Your task to perform on an android device: Go to sound settings Image 0: 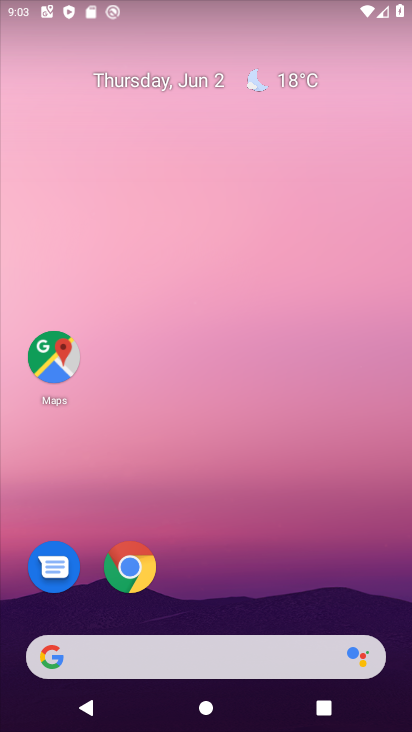
Step 0: press home button
Your task to perform on an android device: Go to sound settings Image 1: 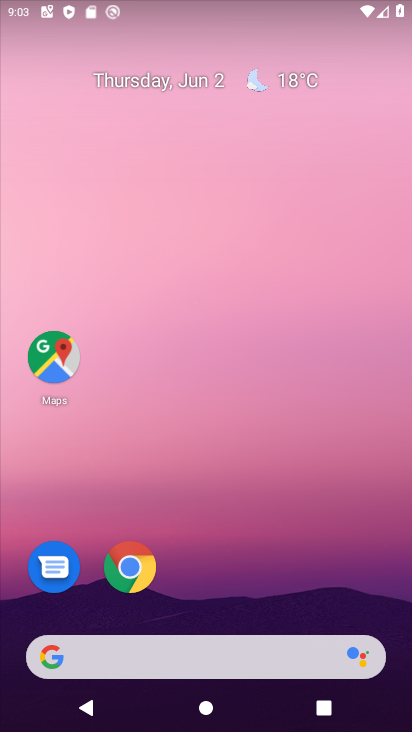
Step 1: drag from (207, 606) to (224, 41)
Your task to perform on an android device: Go to sound settings Image 2: 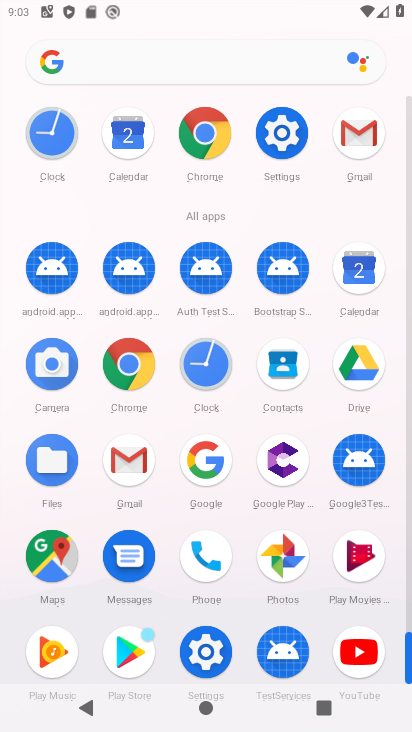
Step 2: click (281, 130)
Your task to perform on an android device: Go to sound settings Image 3: 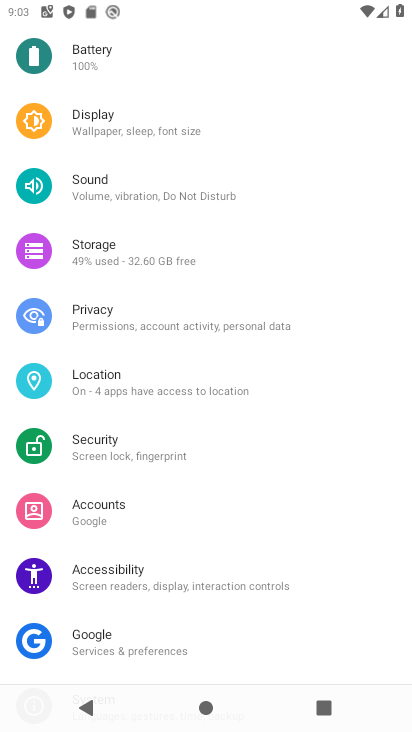
Step 3: click (114, 183)
Your task to perform on an android device: Go to sound settings Image 4: 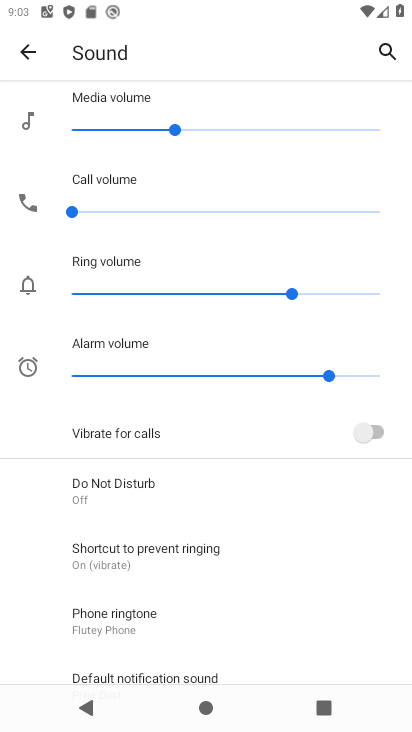
Step 4: drag from (191, 602) to (185, 108)
Your task to perform on an android device: Go to sound settings Image 5: 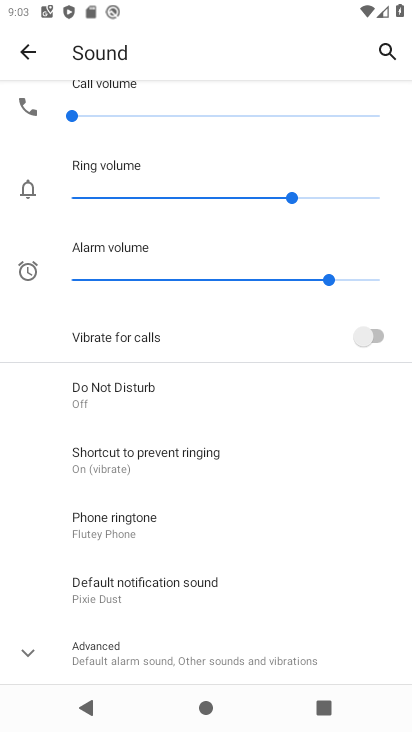
Step 5: click (21, 650)
Your task to perform on an android device: Go to sound settings Image 6: 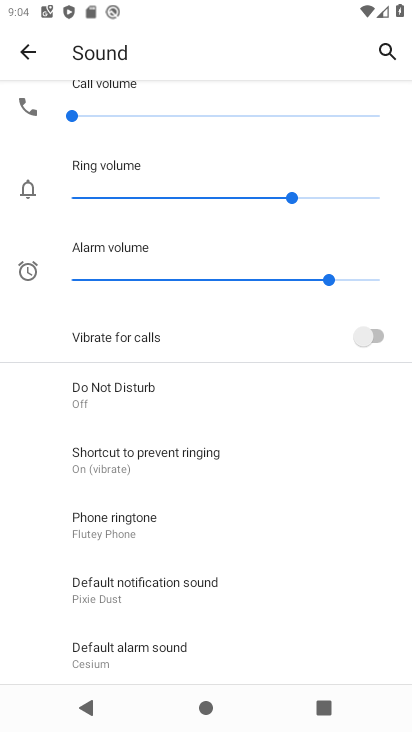
Step 6: task complete